Your task to perform on an android device: Go to internet settings Image 0: 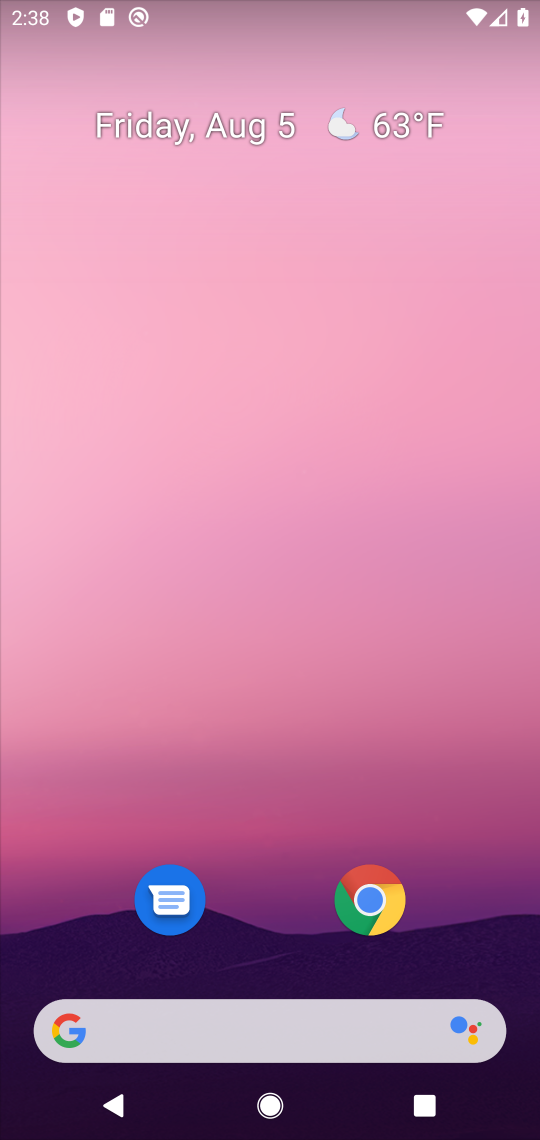
Step 0: drag from (305, 990) to (285, 40)
Your task to perform on an android device: Go to internet settings Image 1: 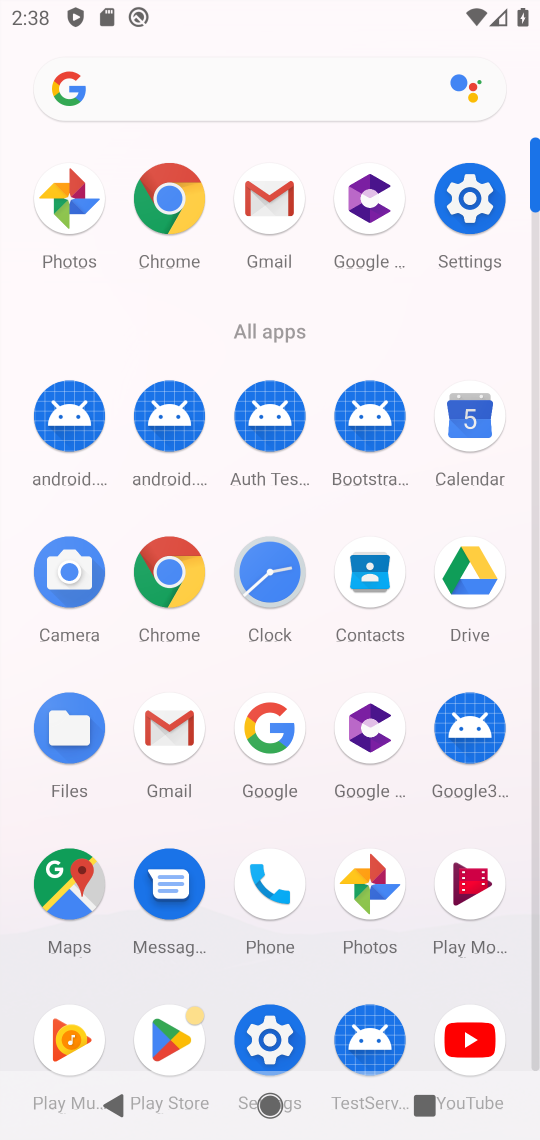
Step 1: click (475, 188)
Your task to perform on an android device: Go to internet settings Image 2: 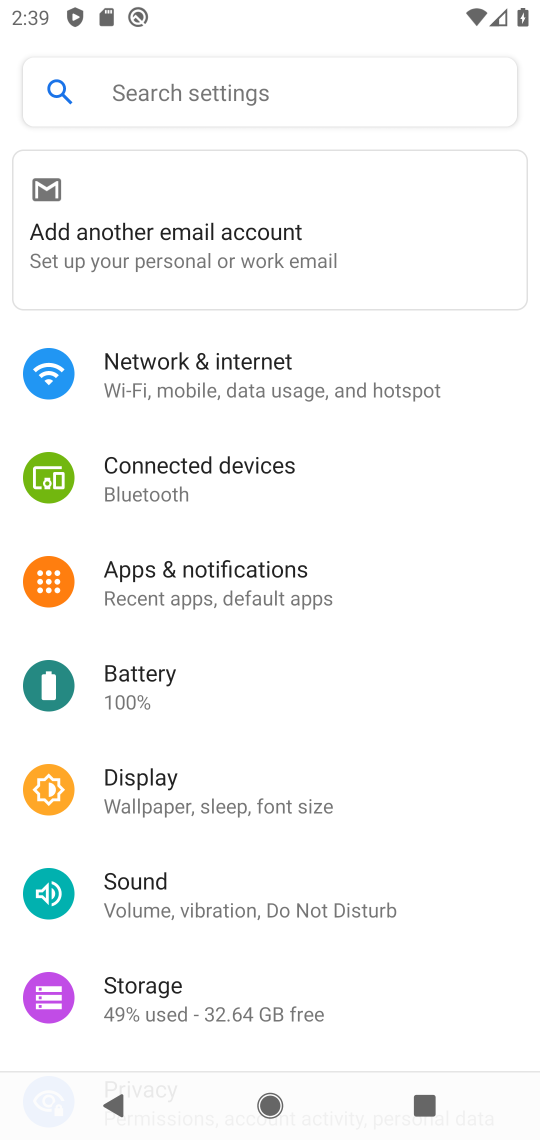
Step 2: task complete